Your task to perform on an android device: Do I have any events today? Image 0: 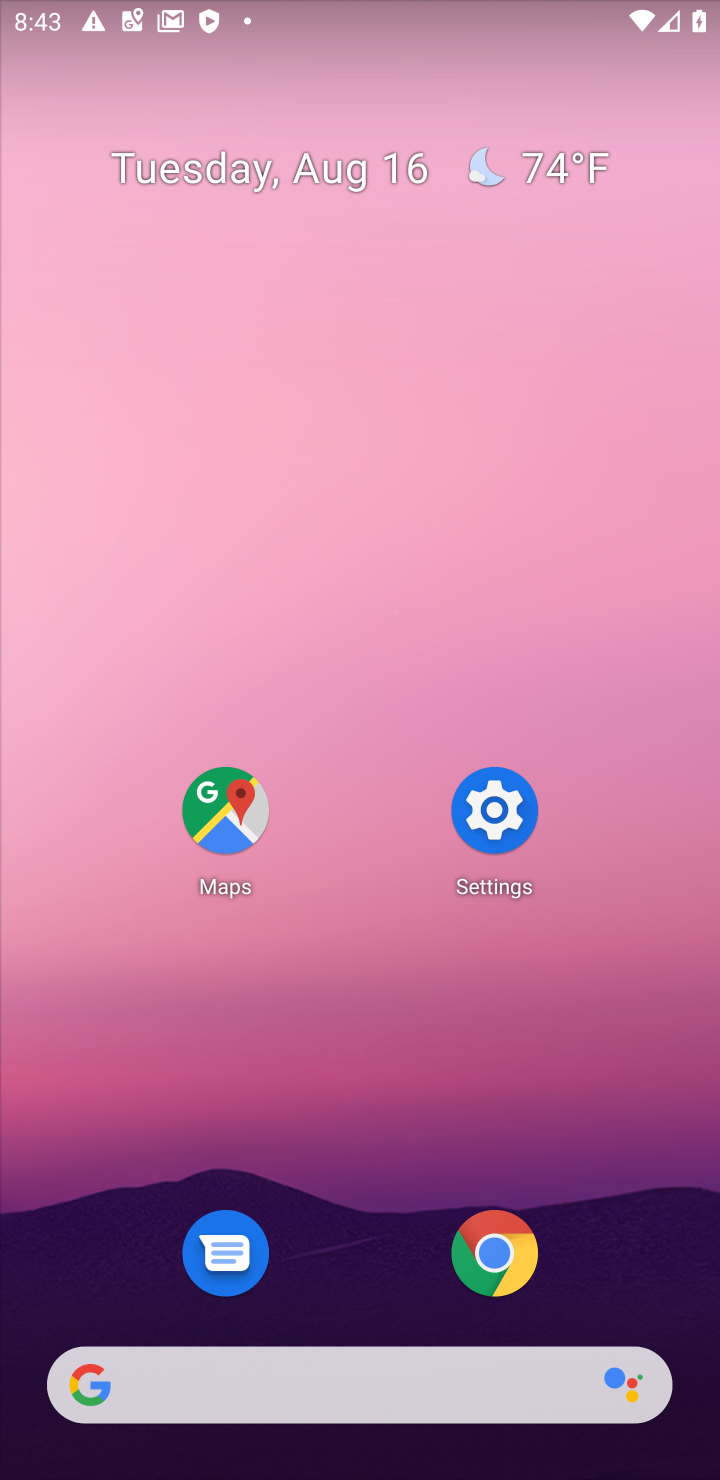
Step 0: press home button
Your task to perform on an android device: Do I have any events today? Image 1: 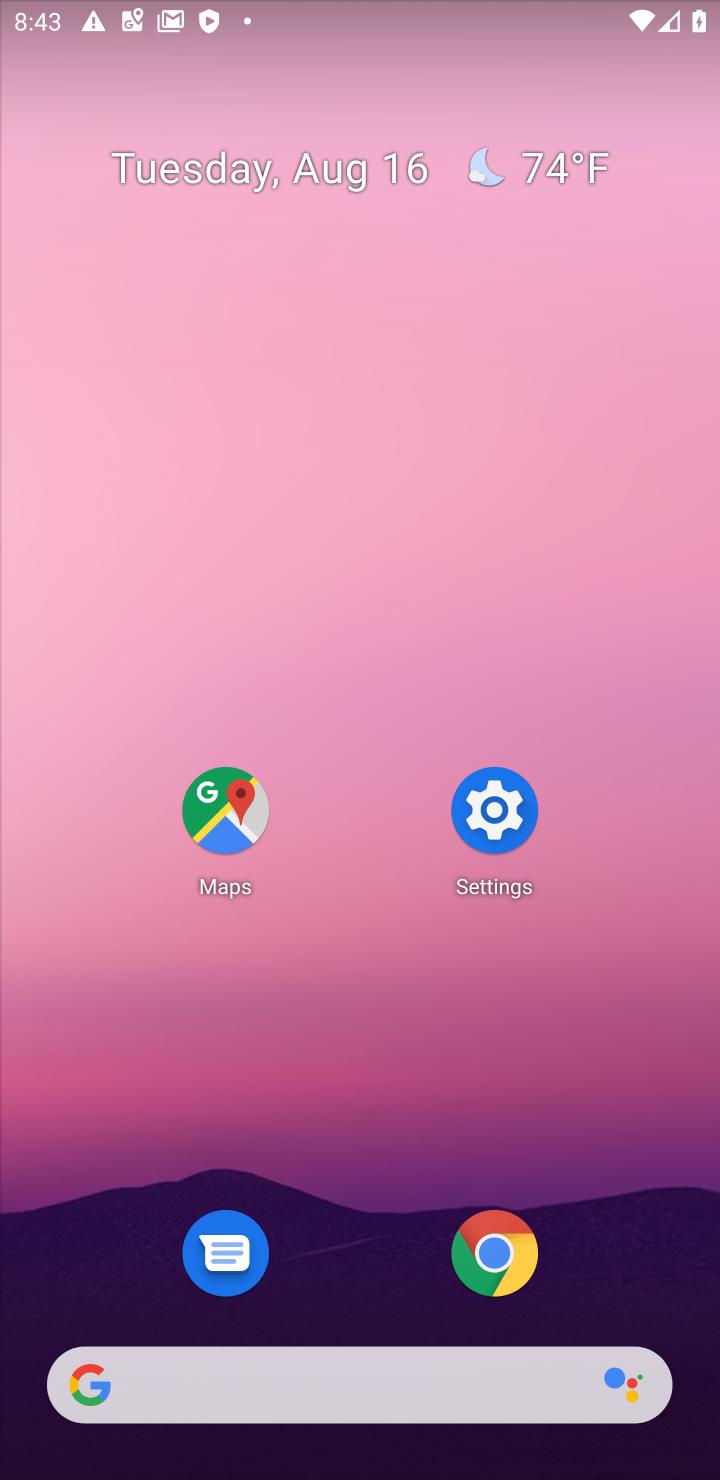
Step 1: drag from (422, 1119) to (619, 369)
Your task to perform on an android device: Do I have any events today? Image 2: 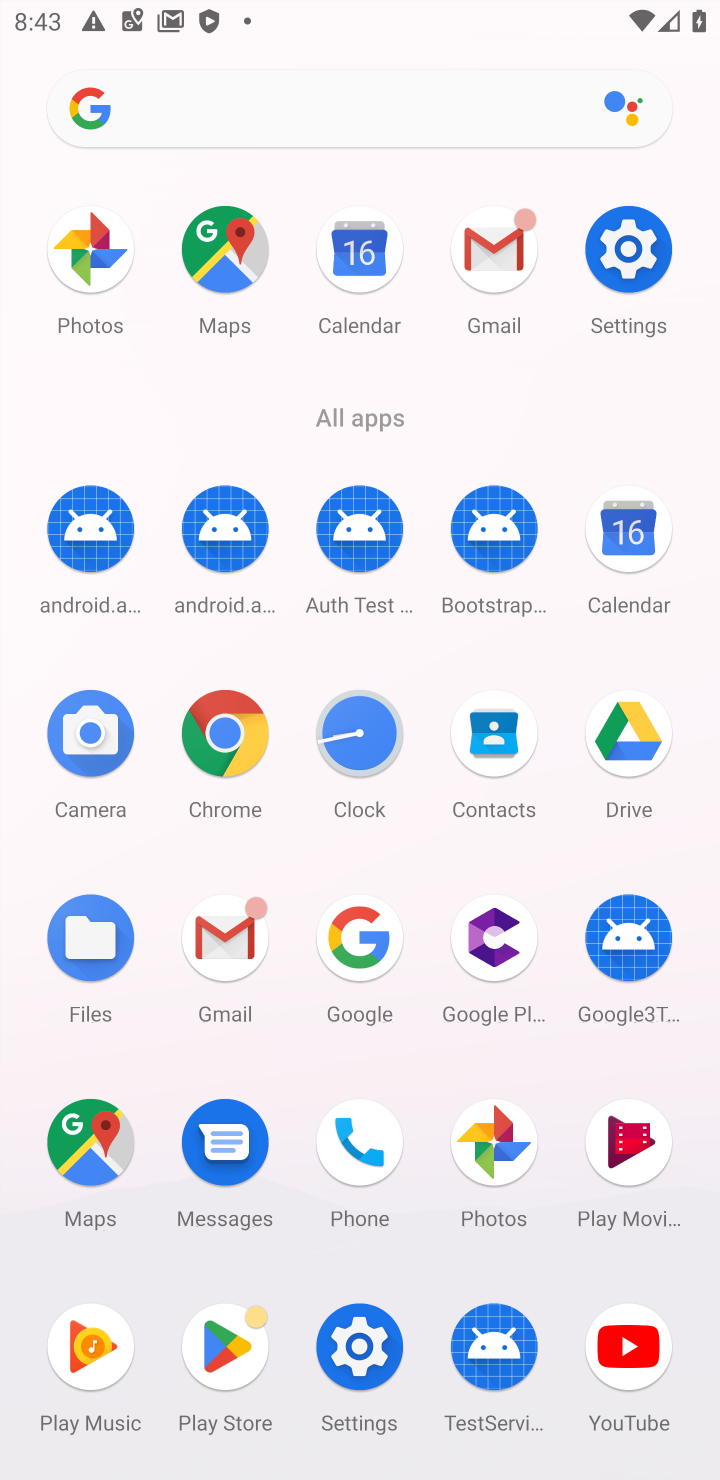
Step 2: click (622, 536)
Your task to perform on an android device: Do I have any events today? Image 3: 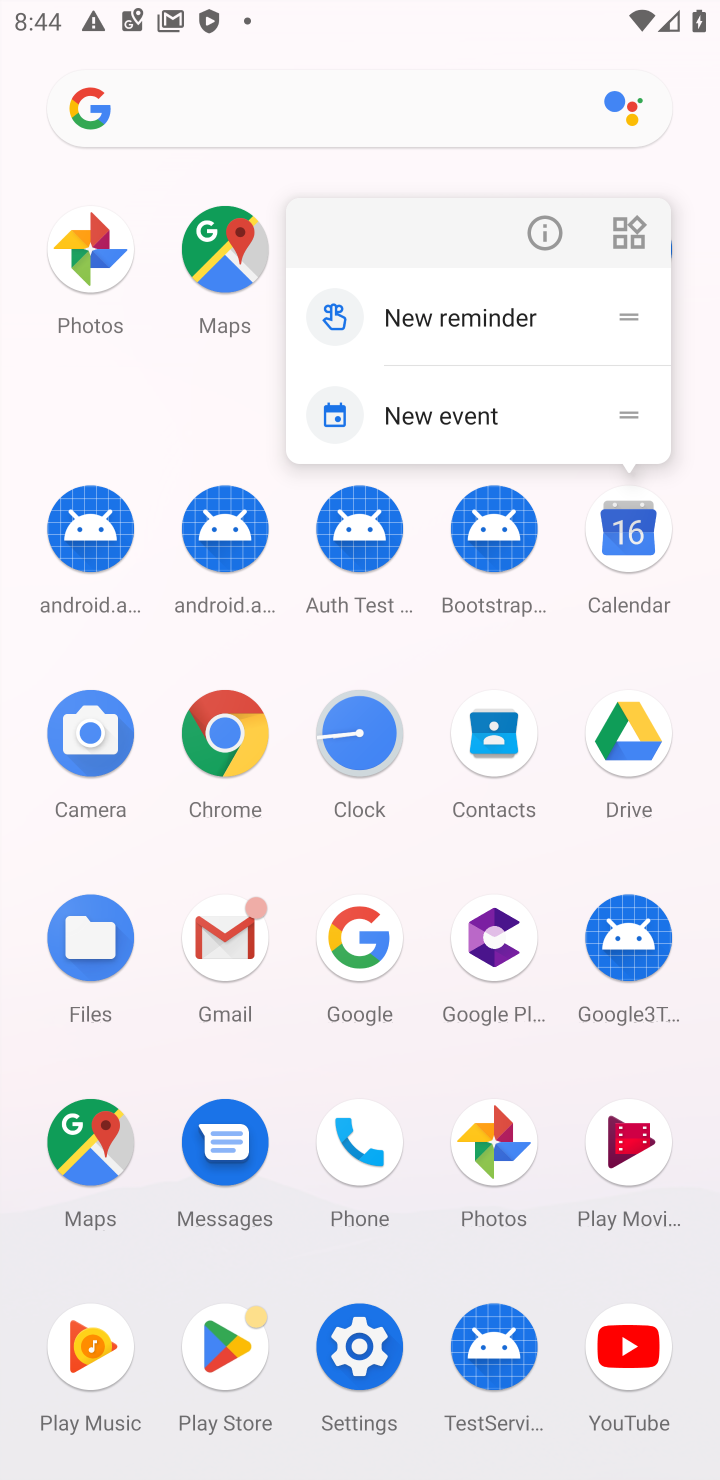
Step 3: click (622, 536)
Your task to perform on an android device: Do I have any events today? Image 4: 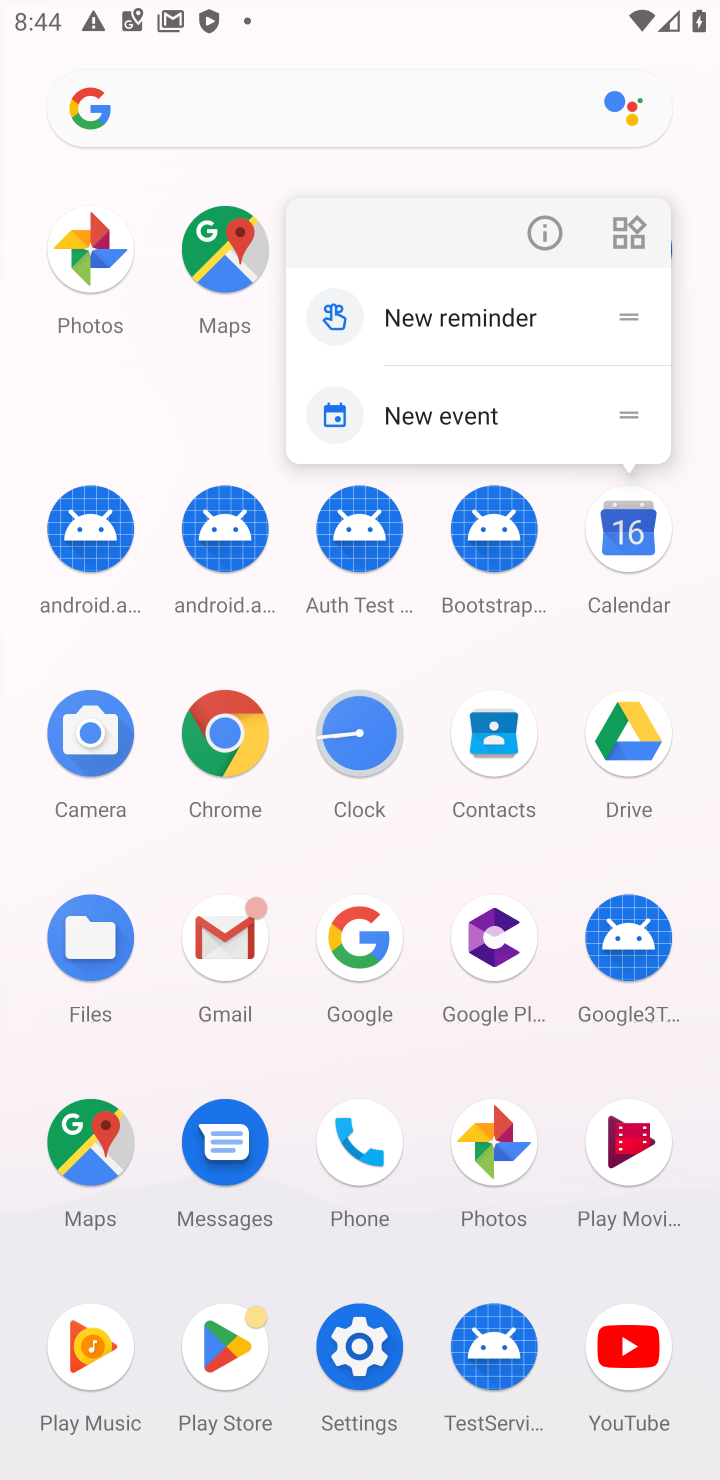
Step 4: click (622, 534)
Your task to perform on an android device: Do I have any events today? Image 5: 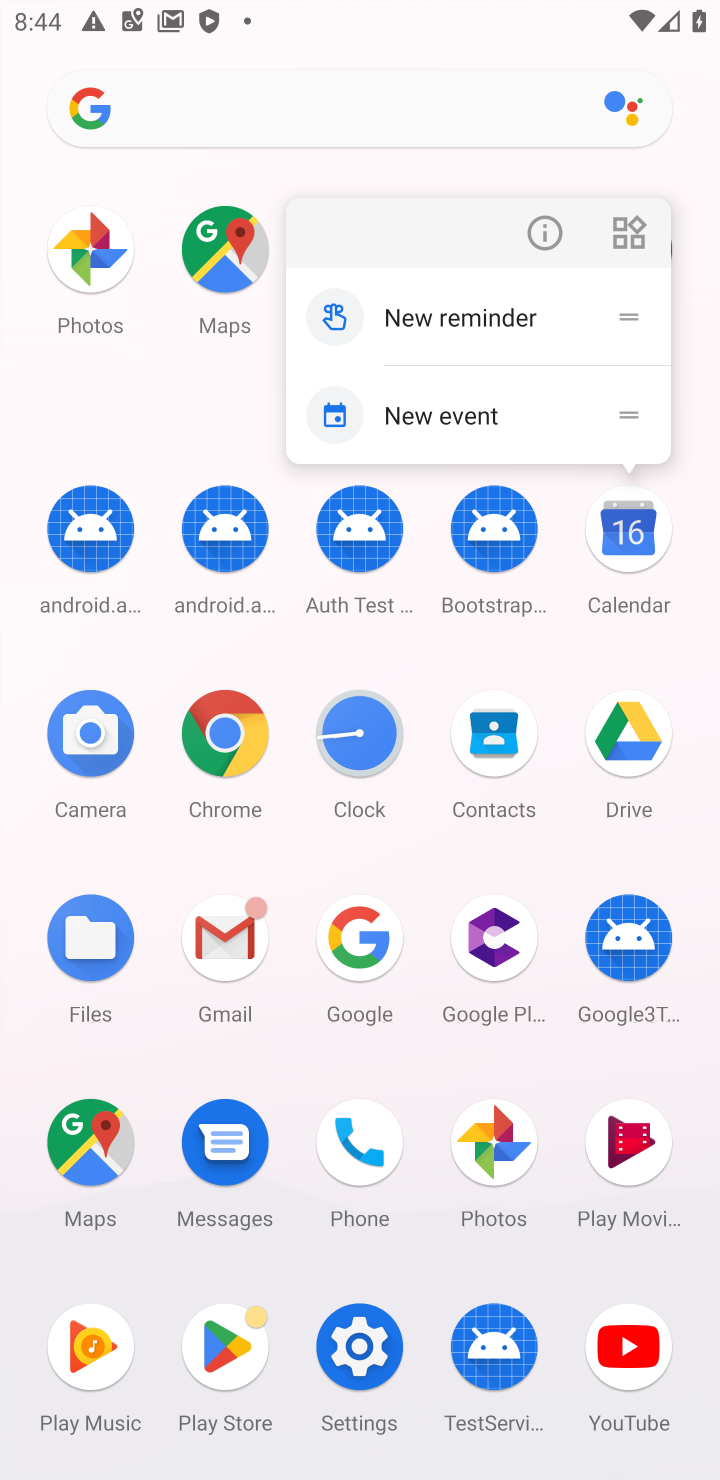
Step 5: click (622, 541)
Your task to perform on an android device: Do I have any events today? Image 6: 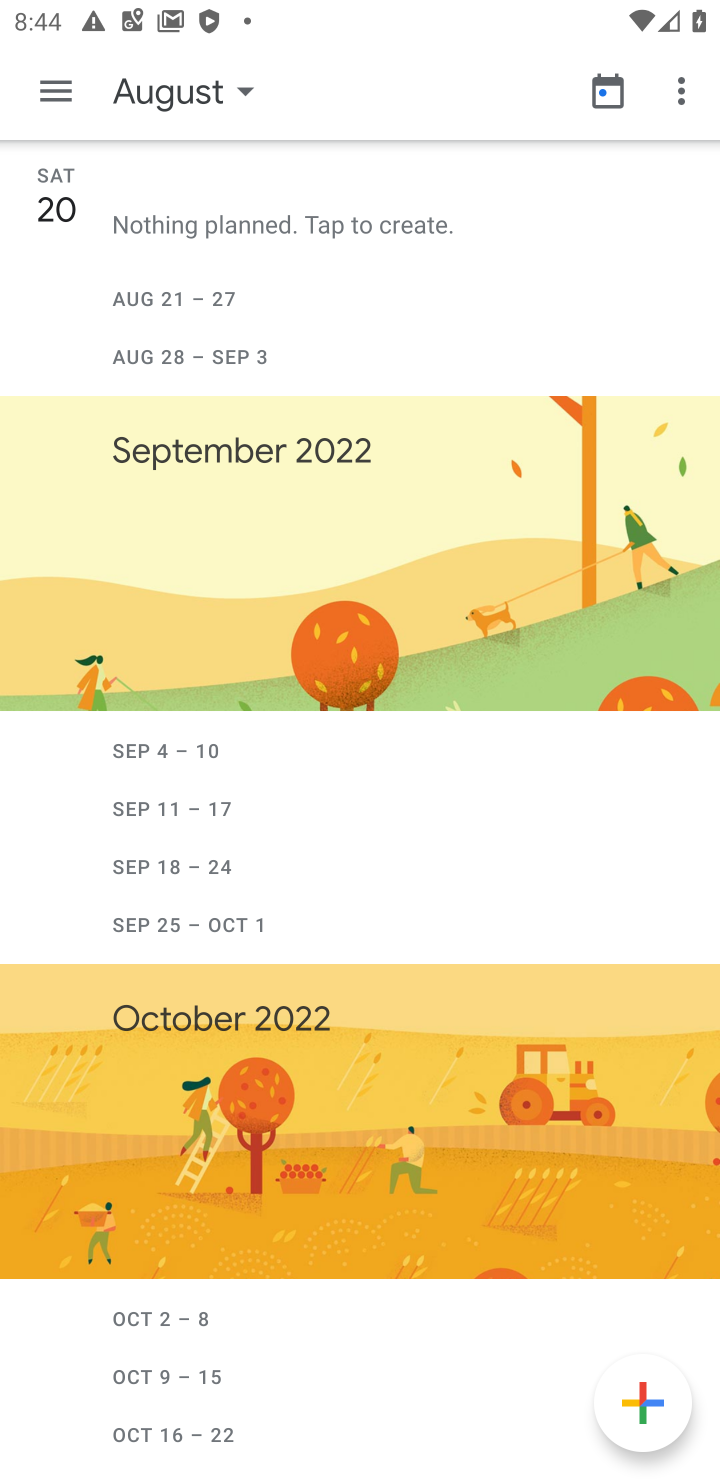
Step 6: click (160, 84)
Your task to perform on an android device: Do I have any events today? Image 7: 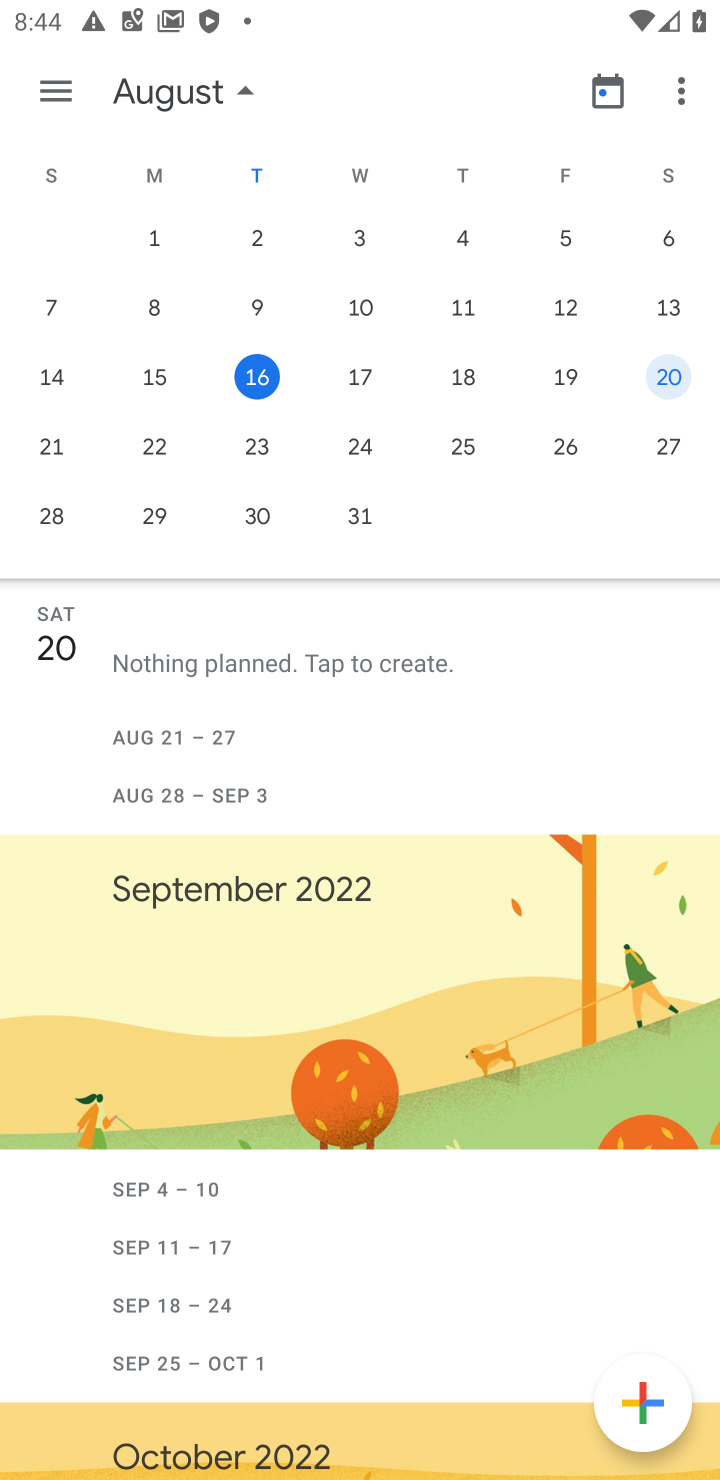
Step 7: click (247, 369)
Your task to perform on an android device: Do I have any events today? Image 8: 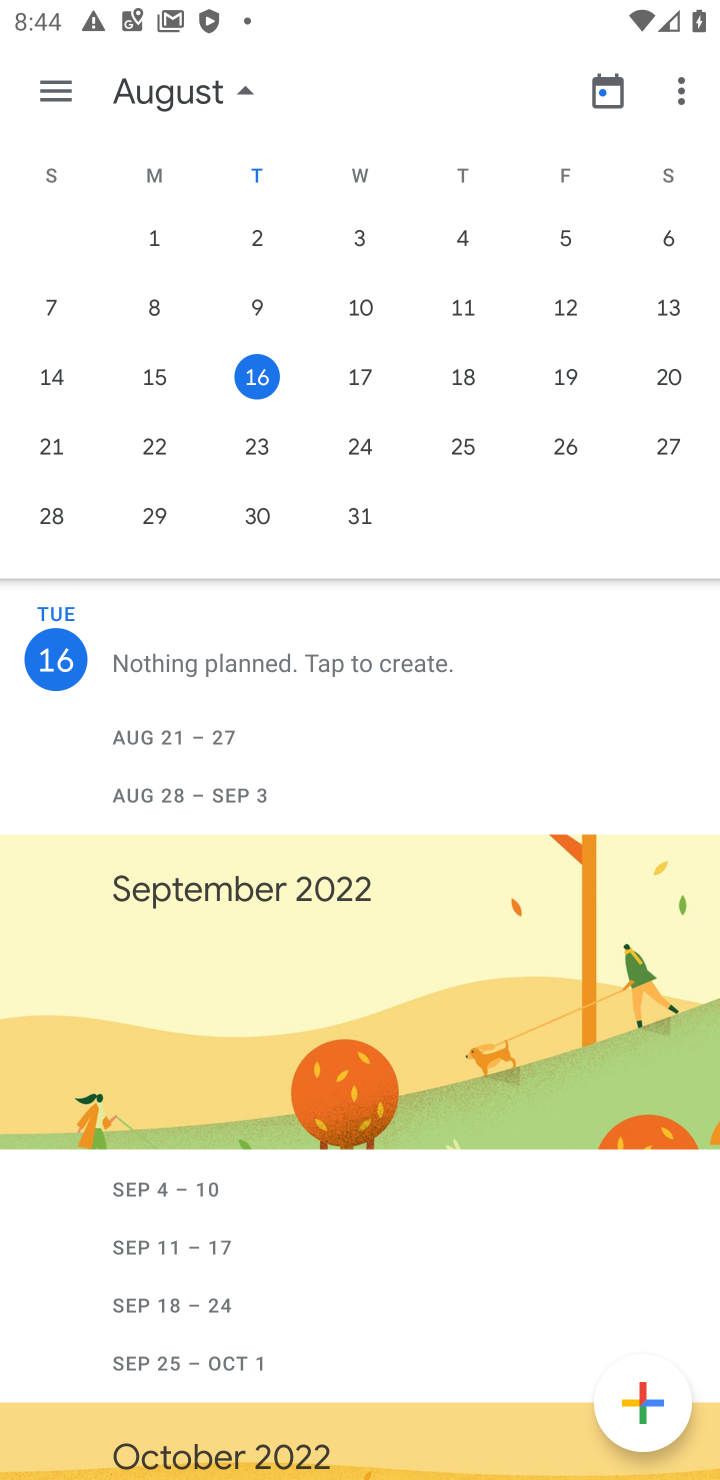
Step 8: click (256, 381)
Your task to perform on an android device: Do I have any events today? Image 9: 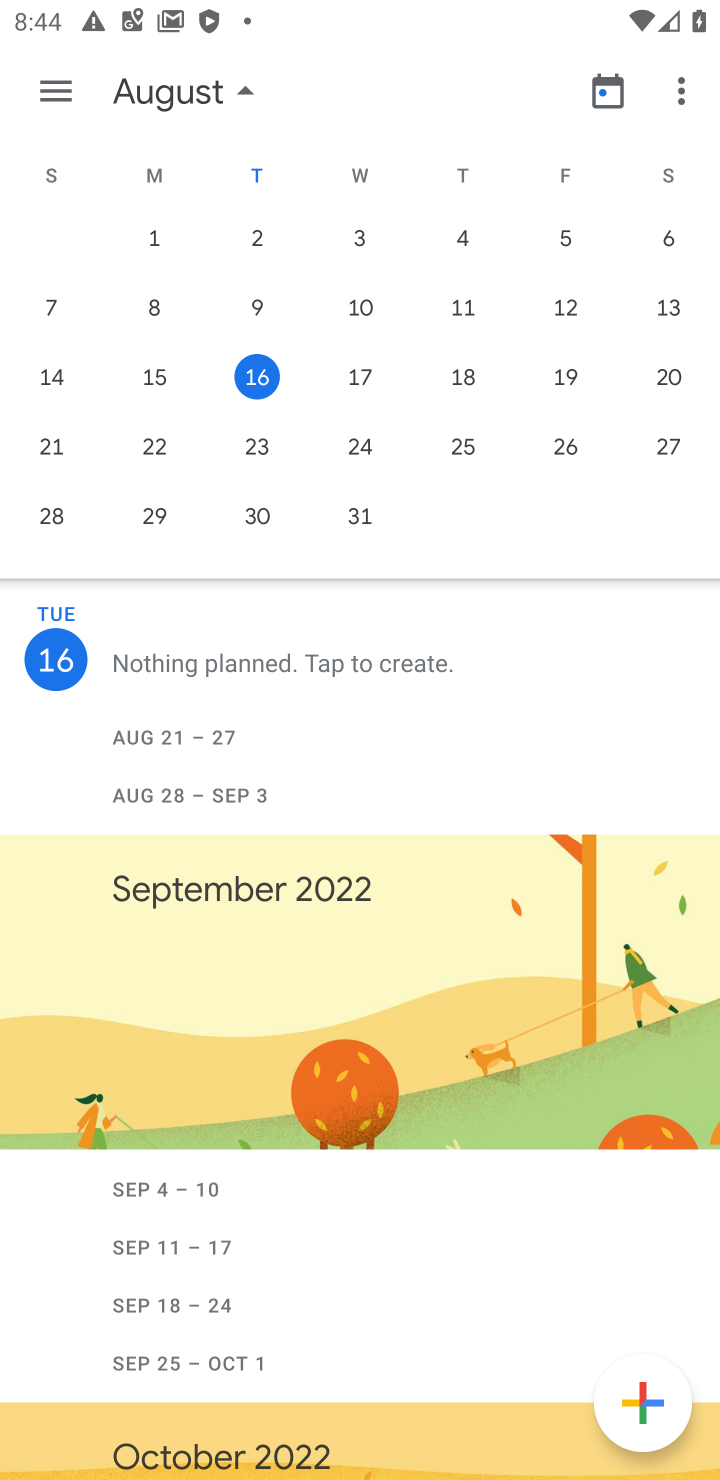
Step 9: click (43, 96)
Your task to perform on an android device: Do I have any events today? Image 10: 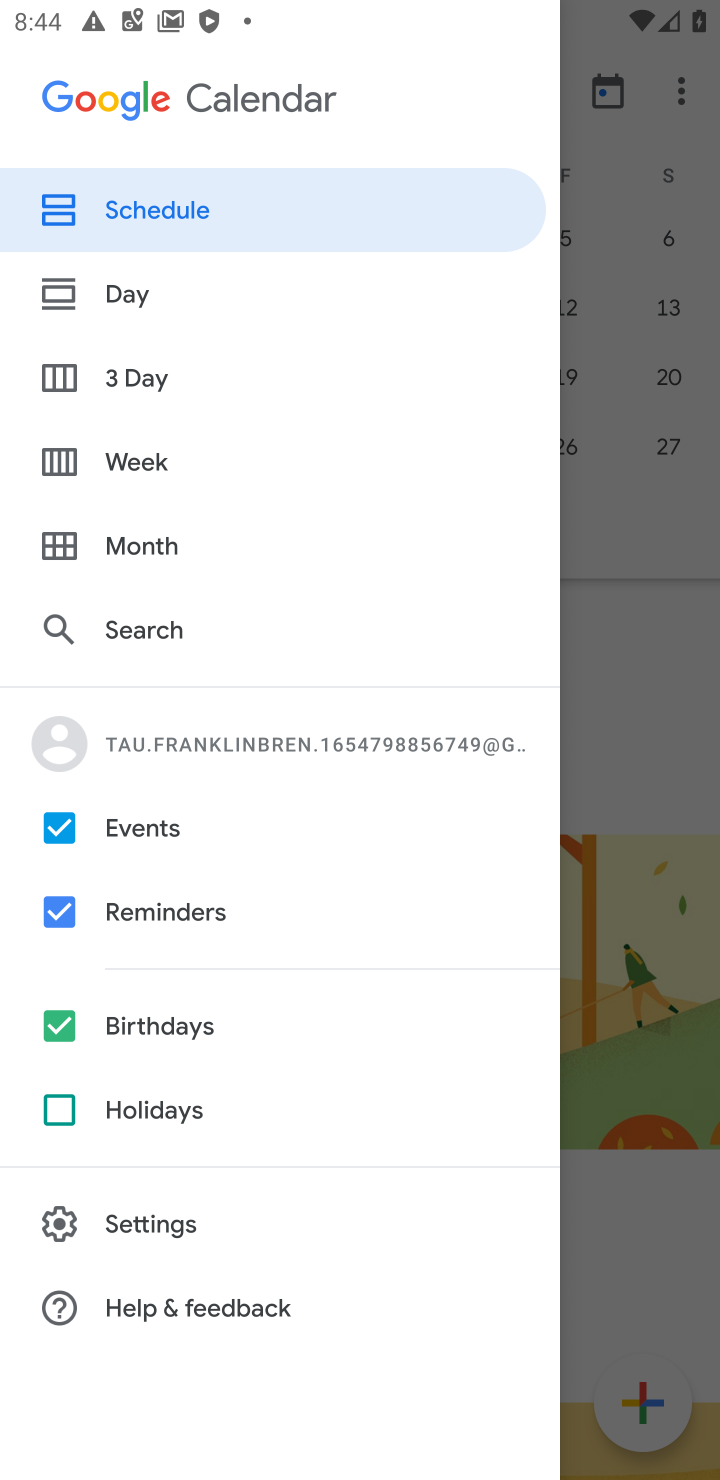
Step 10: click (130, 283)
Your task to perform on an android device: Do I have any events today? Image 11: 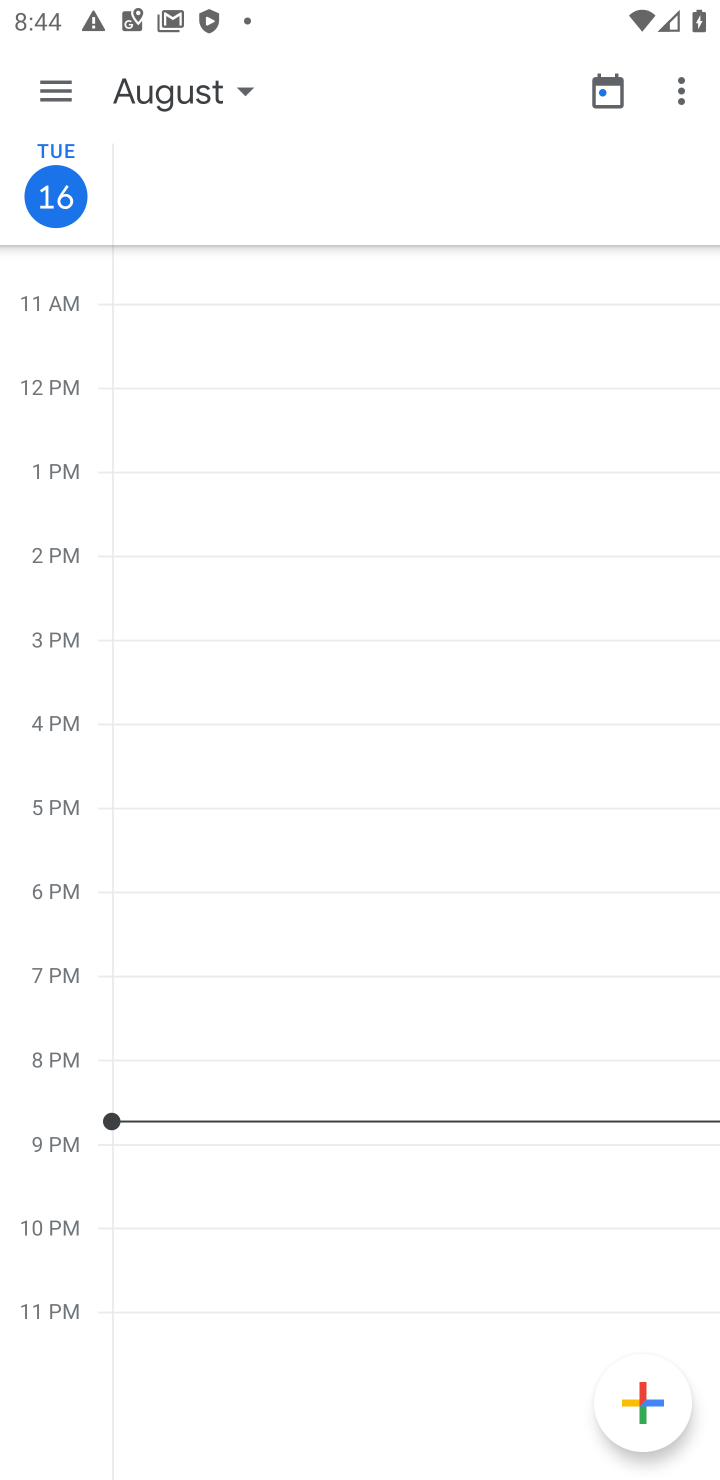
Step 11: click (59, 77)
Your task to perform on an android device: Do I have any events today? Image 12: 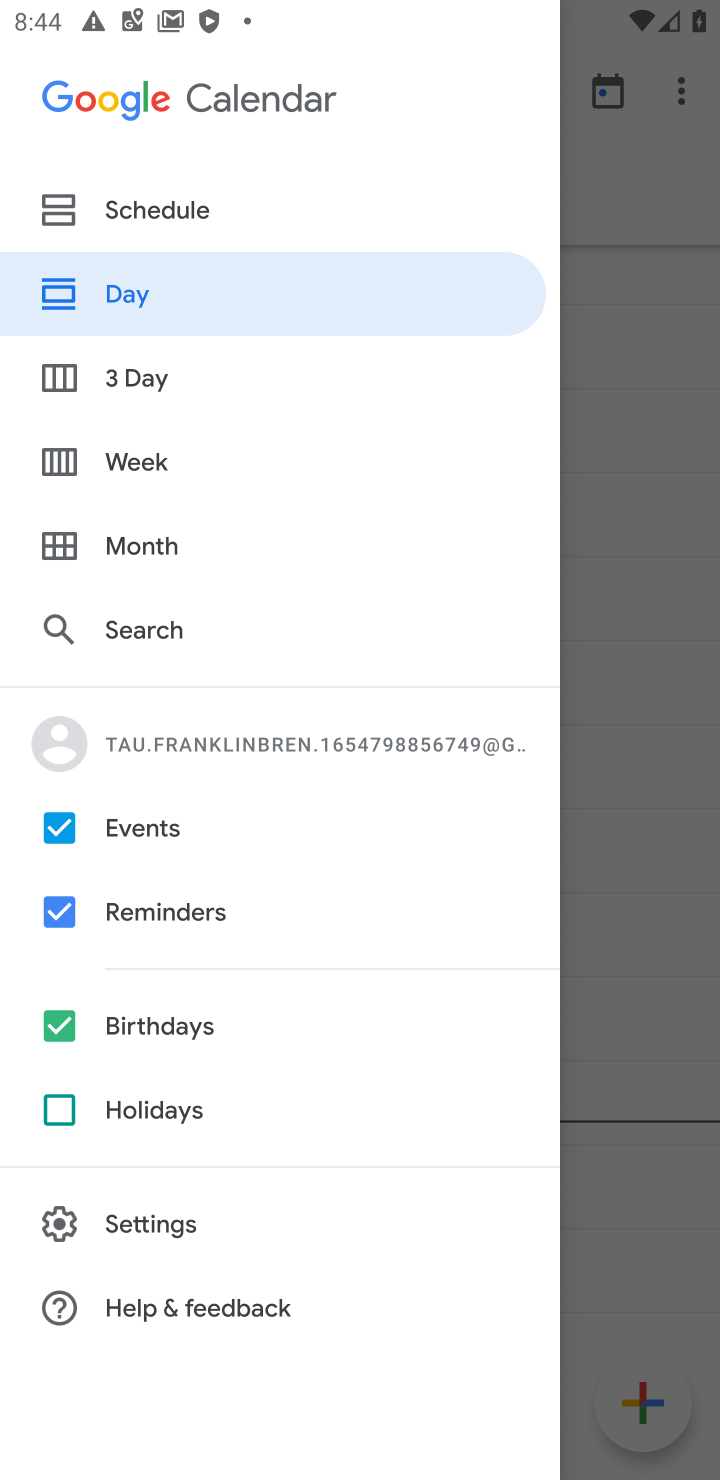
Step 12: click (161, 202)
Your task to perform on an android device: Do I have any events today? Image 13: 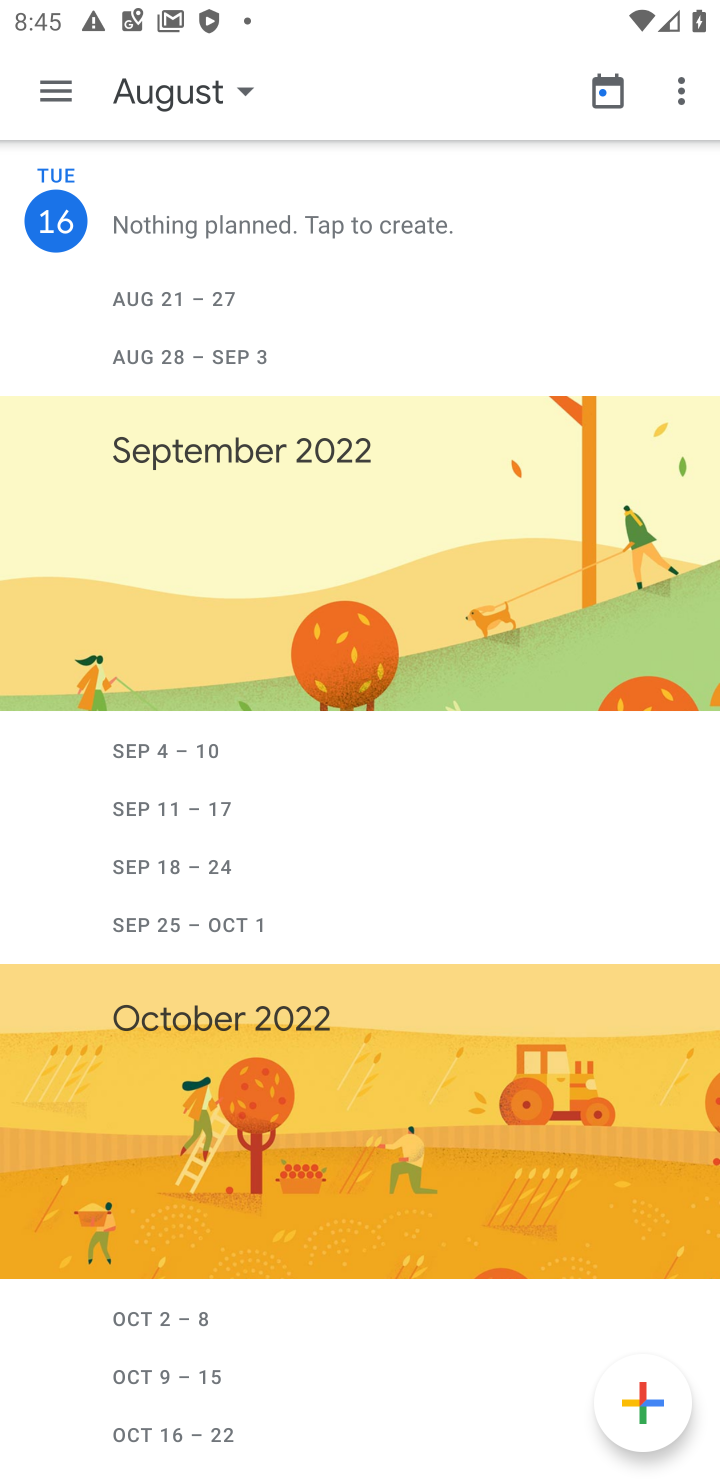
Step 13: task complete